Your task to perform on an android device: Open Amazon Image 0: 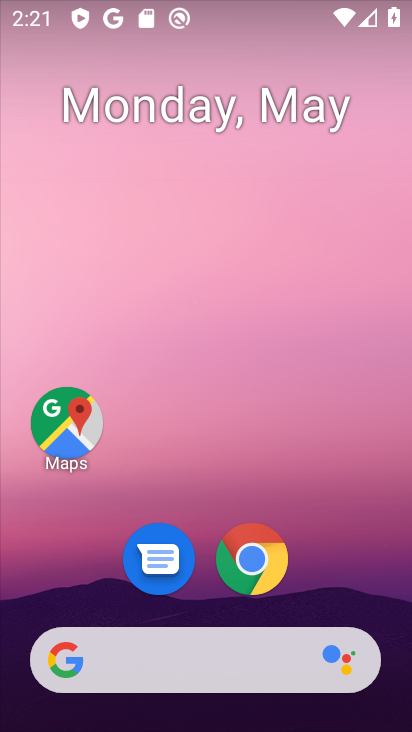
Step 0: click (249, 559)
Your task to perform on an android device: Open Amazon Image 1: 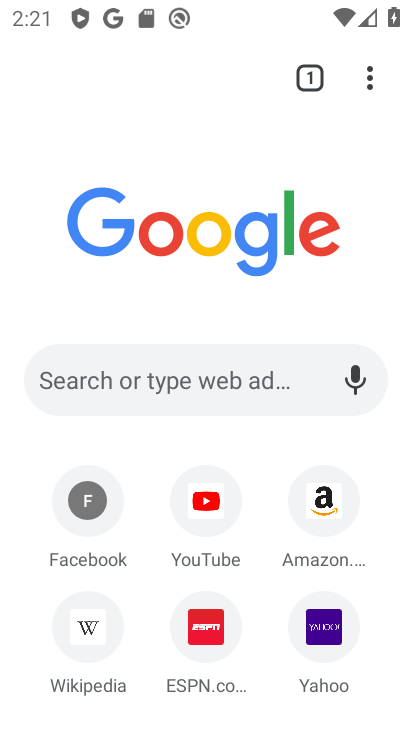
Step 1: click (325, 491)
Your task to perform on an android device: Open Amazon Image 2: 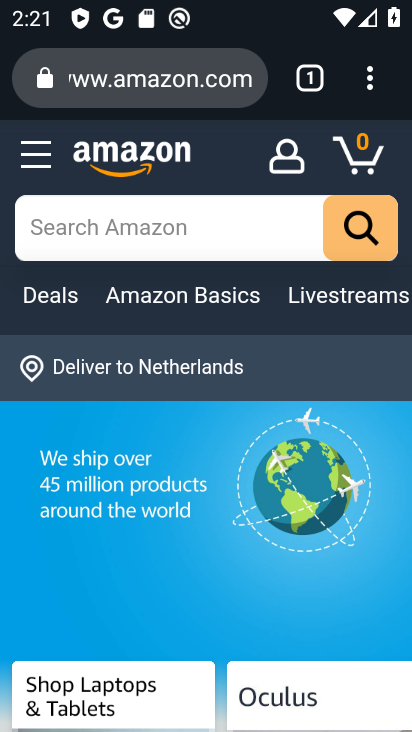
Step 2: task complete